Your task to perform on an android device: turn off priority inbox in the gmail app Image 0: 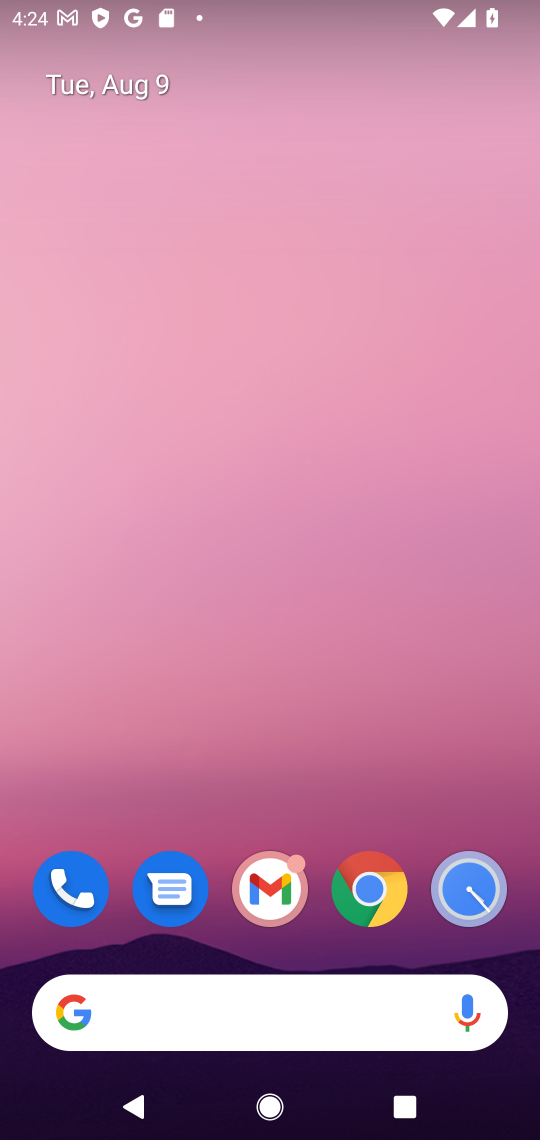
Step 0: click (267, 887)
Your task to perform on an android device: turn off priority inbox in the gmail app Image 1: 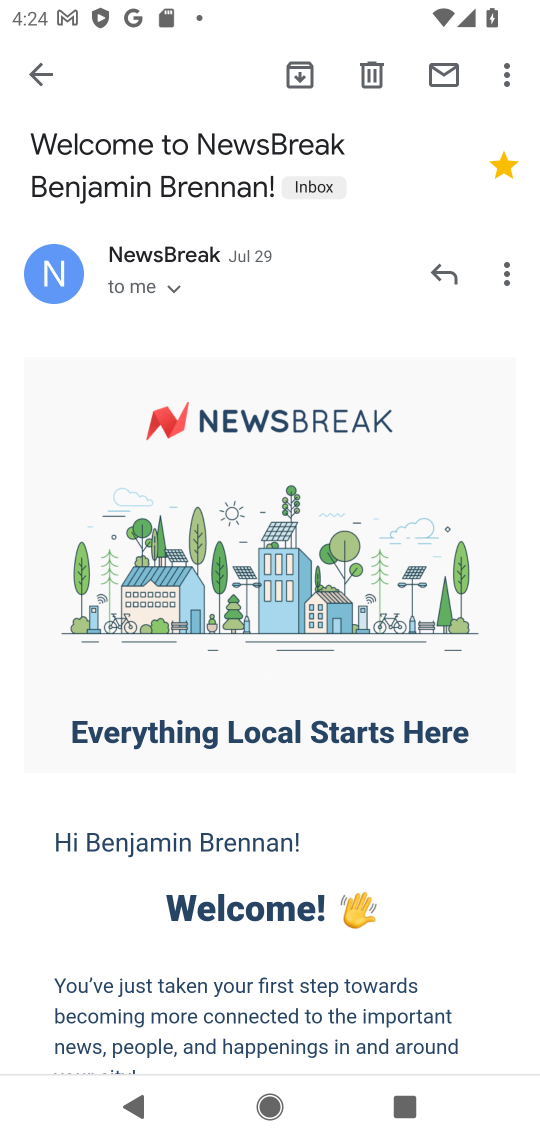
Step 1: click (49, 66)
Your task to perform on an android device: turn off priority inbox in the gmail app Image 2: 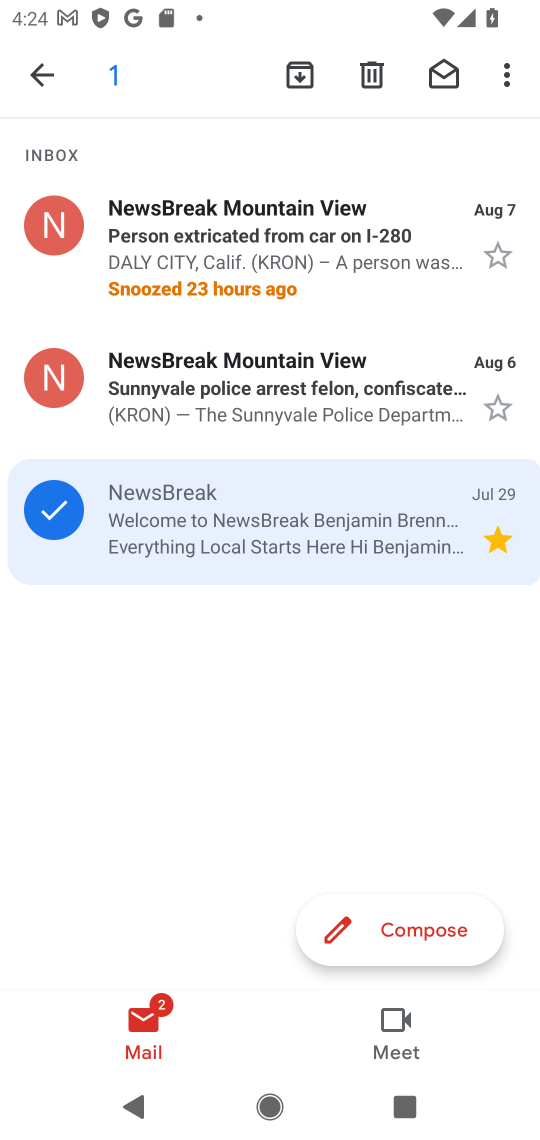
Step 2: click (43, 70)
Your task to perform on an android device: turn off priority inbox in the gmail app Image 3: 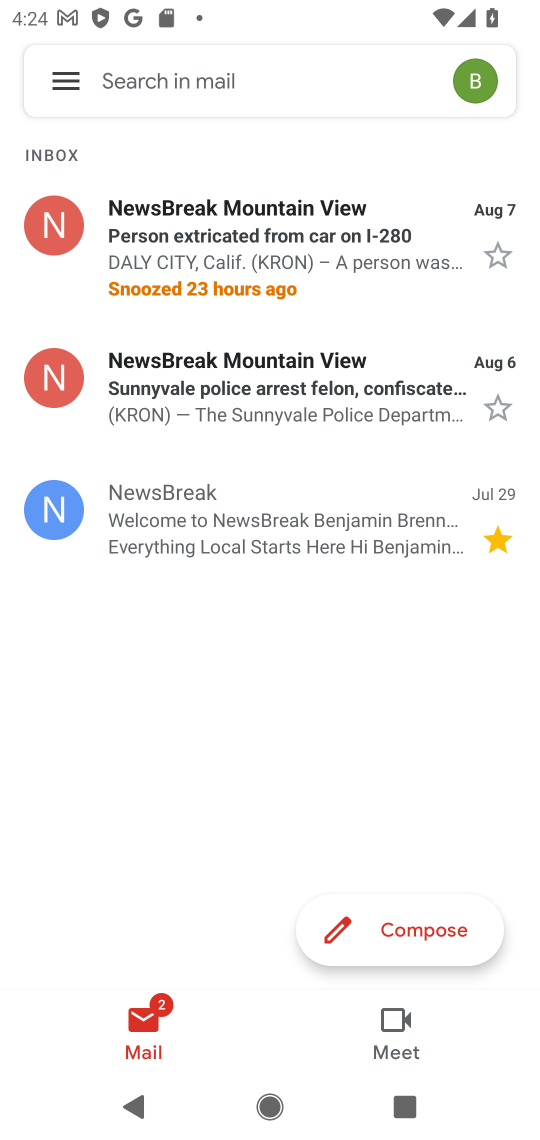
Step 3: click (64, 75)
Your task to perform on an android device: turn off priority inbox in the gmail app Image 4: 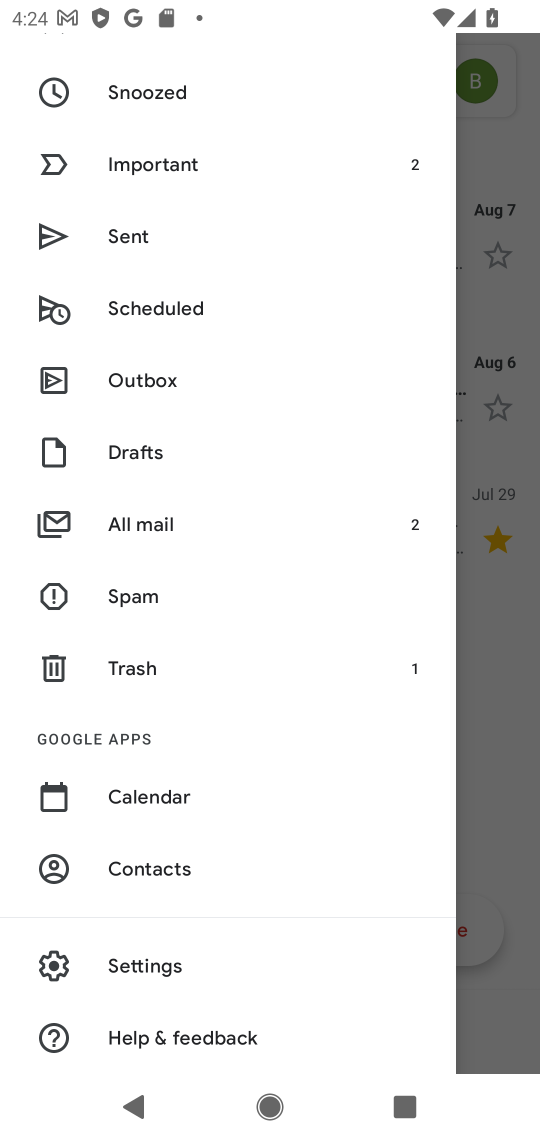
Step 4: click (187, 961)
Your task to perform on an android device: turn off priority inbox in the gmail app Image 5: 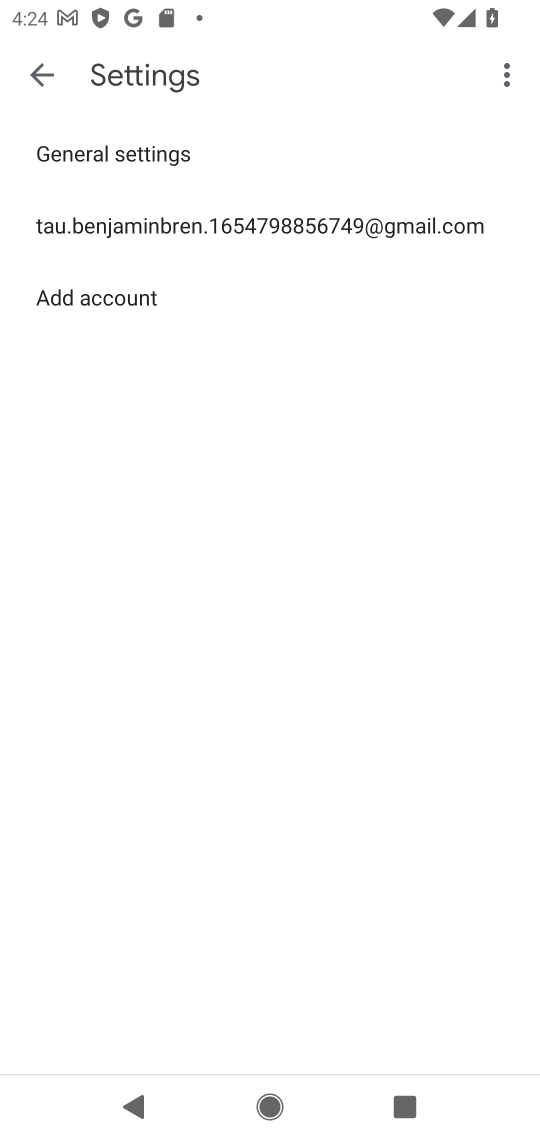
Step 5: click (282, 214)
Your task to perform on an android device: turn off priority inbox in the gmail app Image 6: 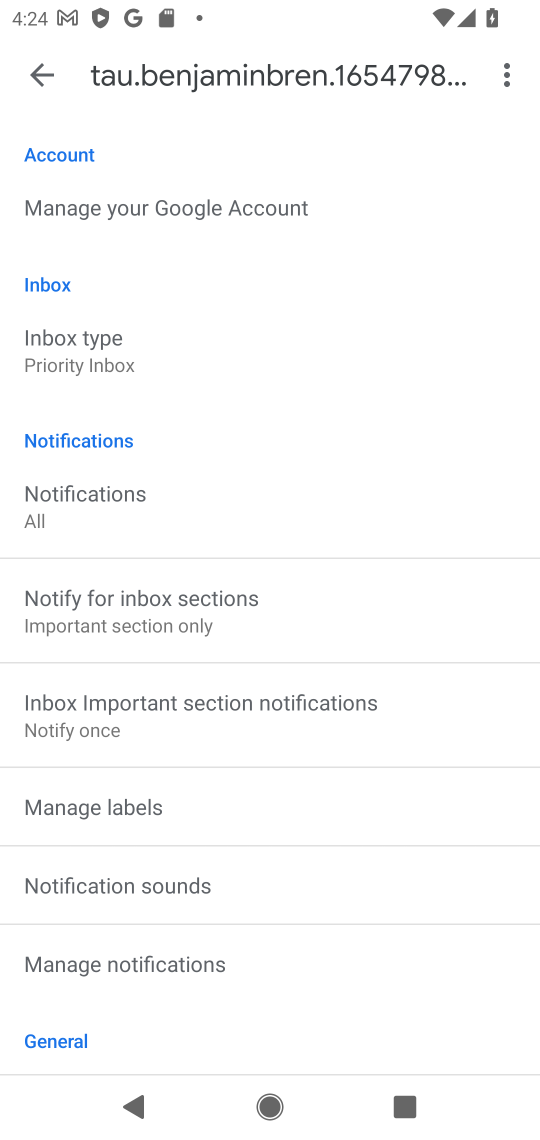
Step 6: click (129, 342)
Your task to perform on an android device: turn off priority inbox in the gmail app Image 7: 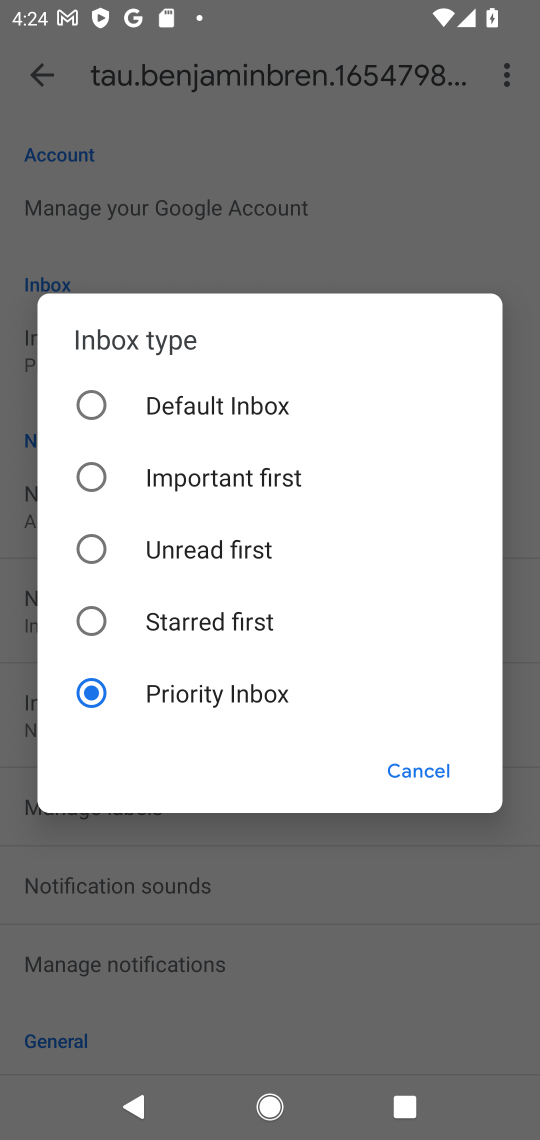
Step 7: click (99, 393)
Your task to perform on an android device: turn off priority inbox in the gmail app Image 8: 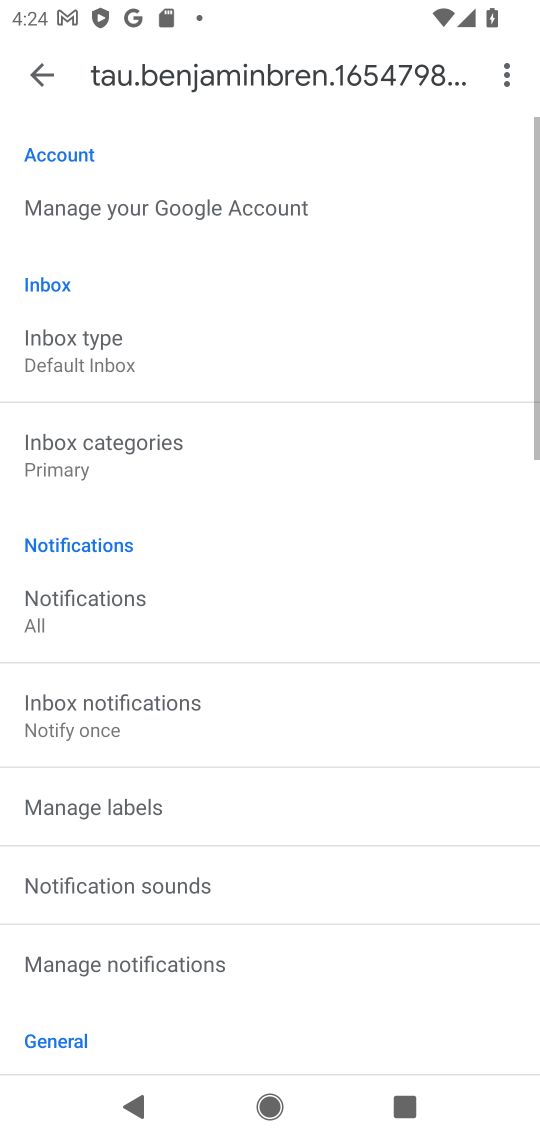
Step 8: task complete